Your task to perform on an android device: turn off location history Image 0: 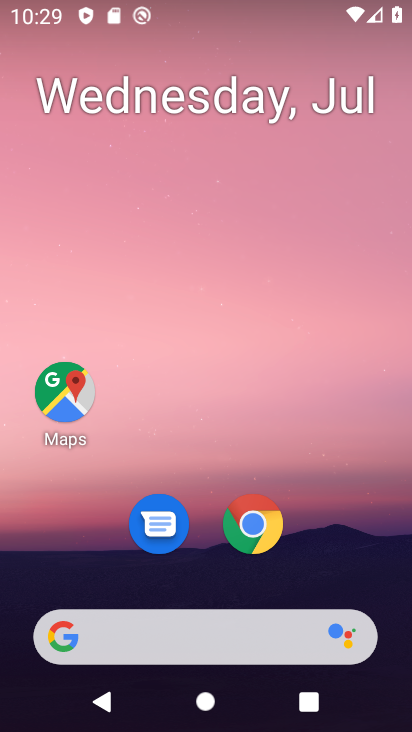
Step 0: click (80, 405)
Your task to perform on an android device: turn off location history Image 1: 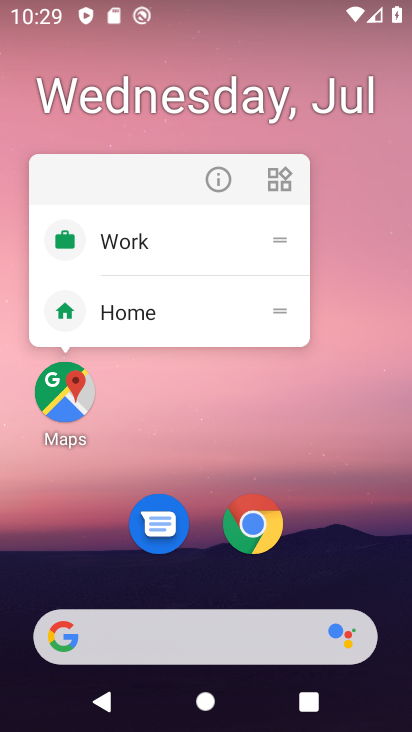
Step 1: click (64, 396)
Your task to perform on an android device: turn off location history Image 2: 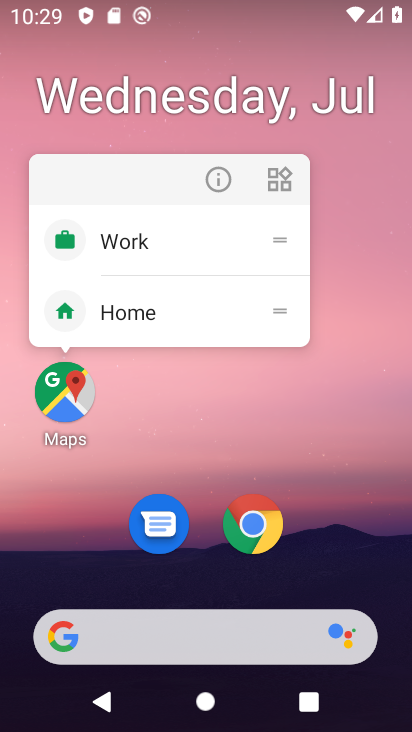
Step 2: click (63, 397)
Your task to perform on an android device: turn off location history Image 3: 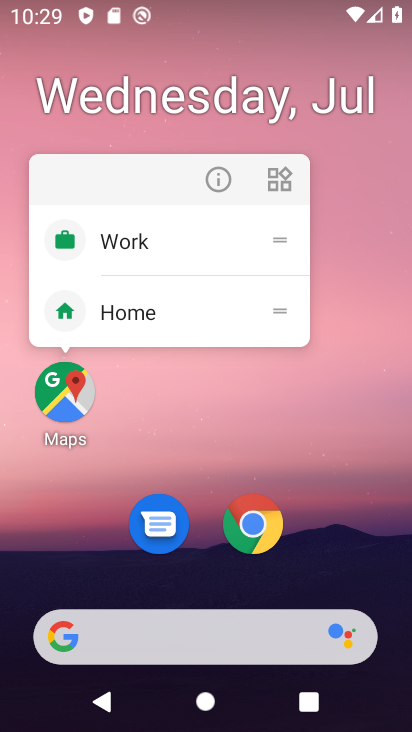
Step 3: click (63, 396)
Your task to perform on an android device: turn off location history Image 4: 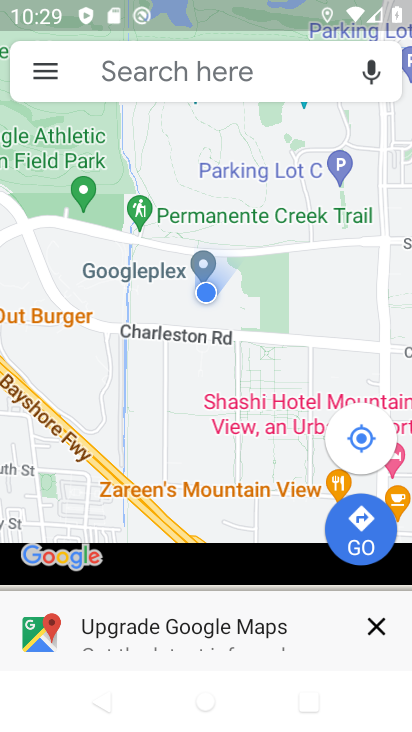
Step 4: click (44, 74)
Your task to perform on an android device: turn off location history Image 5: 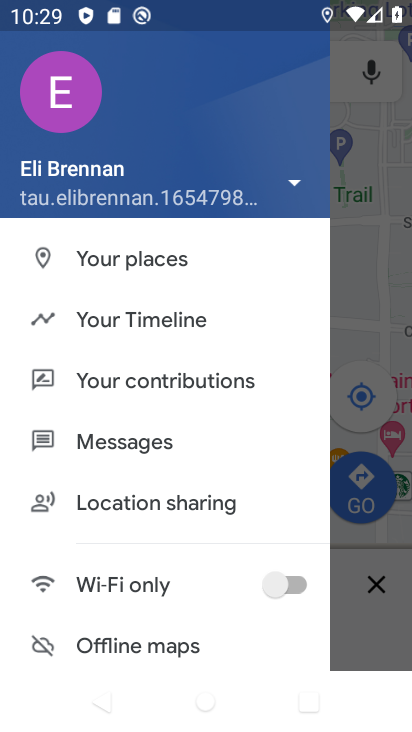
Step 5: click (130, 314)
Your task to perform on an android device: turn off location history Image 6: 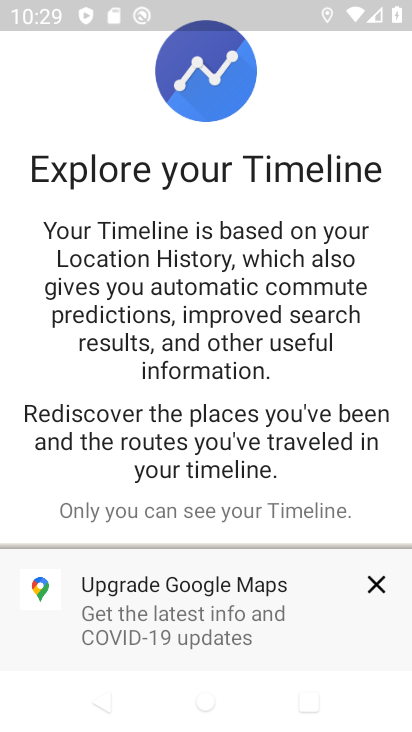
Step 6: drag from (283, 295) to (347, 51)
Your task to perform on an android device: turn off location history Image 7: 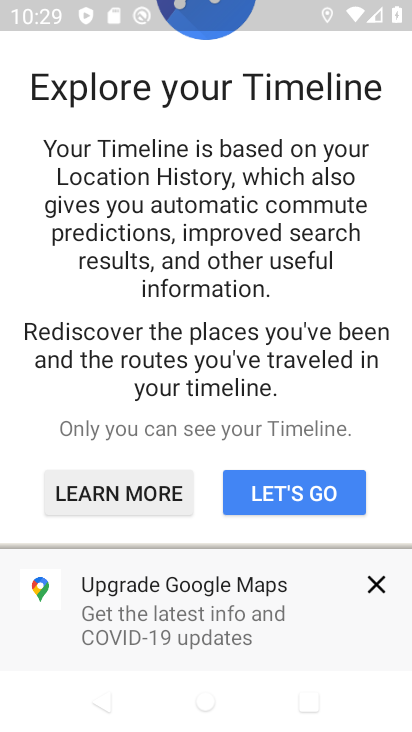
Step 7: click (376, 590)
Your task to perform on an android device: turn off location history Image 8: 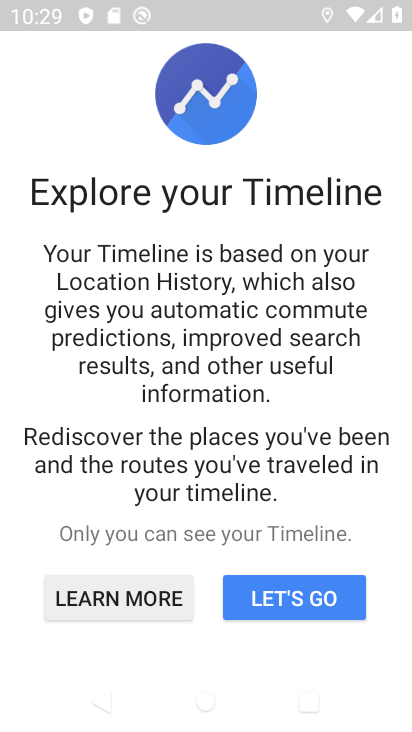
Step 8: click (286, 582)
Your task to perform on an android device: turn off location history Image 9: 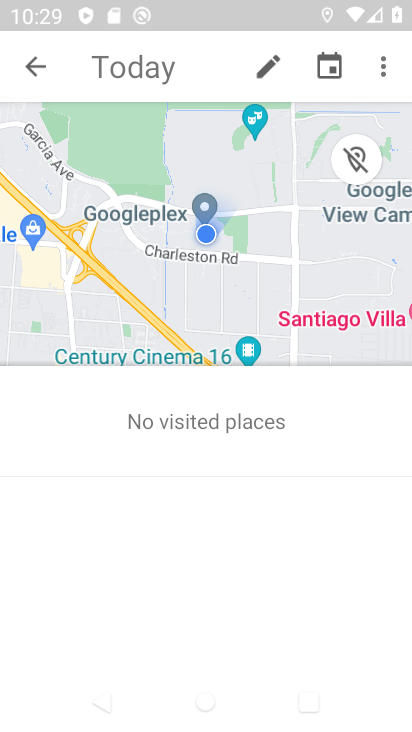
Step 9: click (384, 61)
Your task to perform on an android device: turn off location history Image 10: 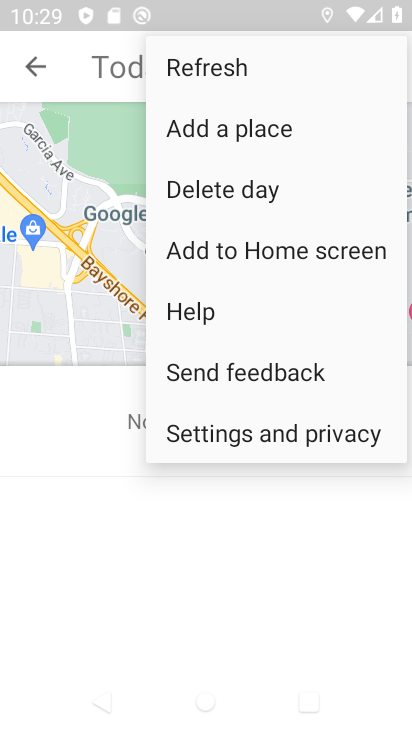
Step 10: click (247, 429)
Your task to perform on an android device: turn off location history Image 11: 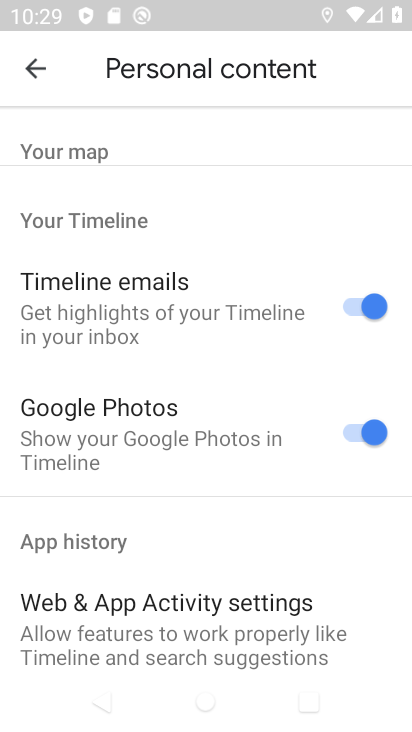
Step 11: drag from (170, 641) to (311, 152)
Your task to perform on an android device: turn off location history Image 12: 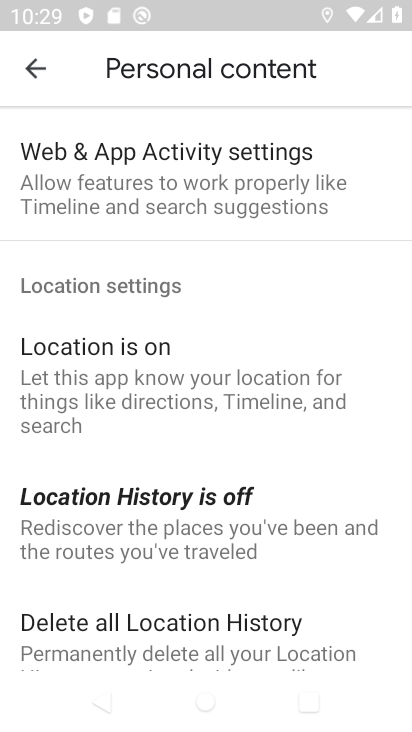
Step 12: click (201, 522)
Your task to perform on an android device: turn off location history Image 13: 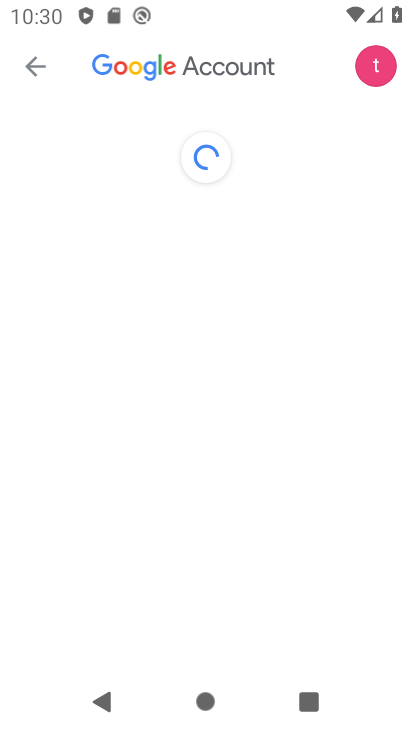
Step 13: drag from (192, 647) to (348, 159)
Your task to perform on an android device: turn off location history Image 14: 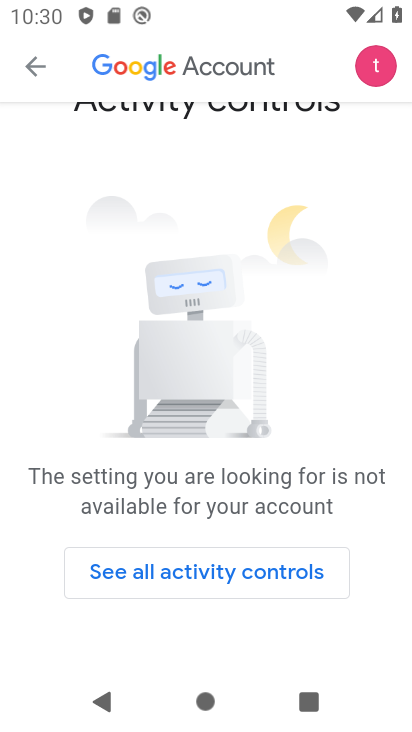
Step 14: click (240, 574)
Your task to perform on an android device: turn off location history Image 15: 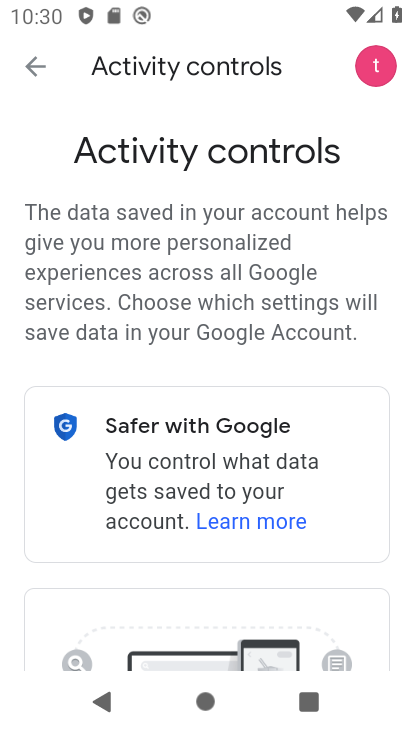
Step 15: task complete